Your task to perform on an android device: Go to wifi settings Image 0: 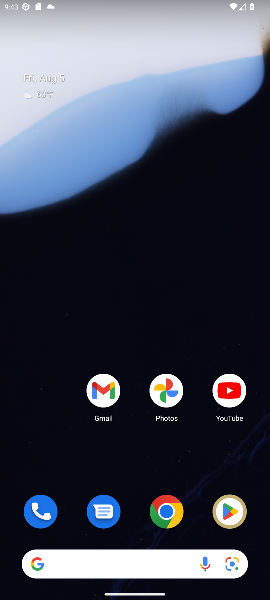
Step 0: drag from (116, 568) to (122, 215)
Your task to perform on an android device: Go to wifi settings Image 1: 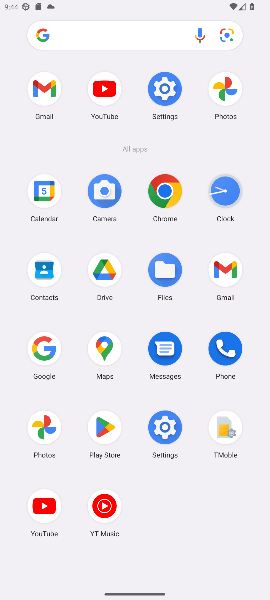
Step 1: click (164, 91)
Your task to perform on an android device: Go to wifi settings Image 2: 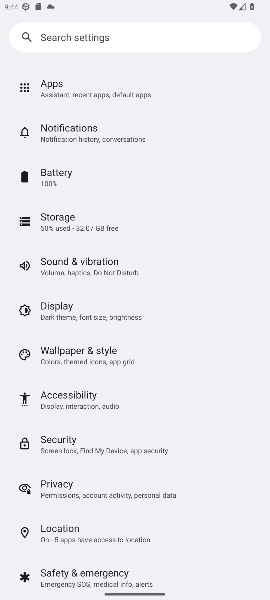
Step 2: drag from (106, 129) to (103, 273)
Your task to perform on an android device: Go to wifi settings Image 3: 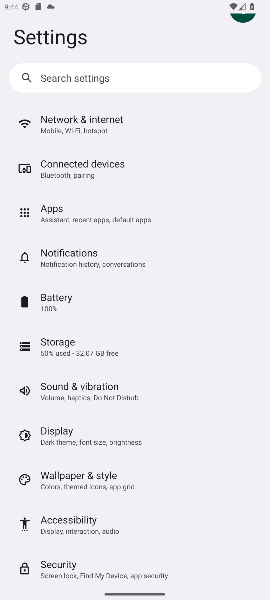
Step 3: click (100, 128)
Your task to perform on an android device: Go to wifi settings Image 4: 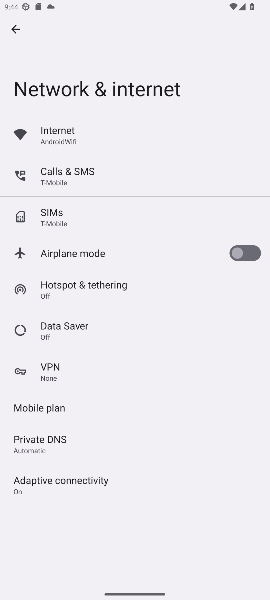
Step 4: click (69, 140)
Your task to perform on an android device: Go to wifi settings Image 5: 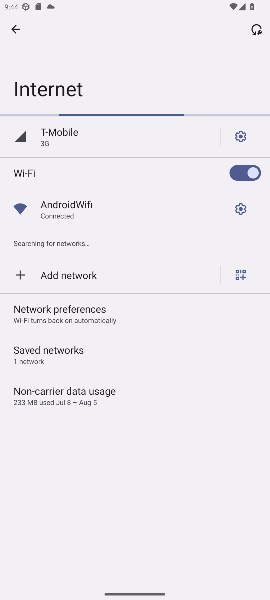
Step 5: click (239, 210)
Your task to perform on an android device: Go to wifi settings Image 6: 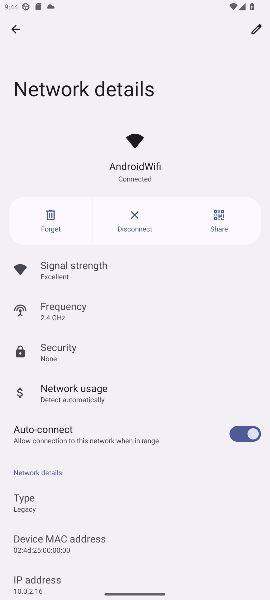
Step 6: task complete